Your task to perform on an android device: turn on location history Image 0: 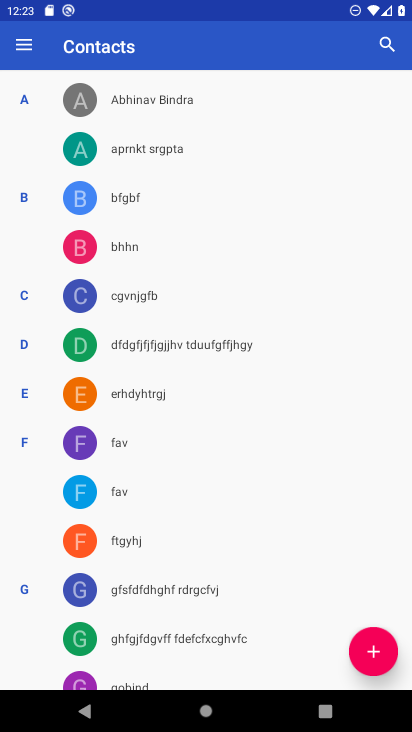
Step 0: press home button
Your task to perform on an android device: turn on location history Image 1: 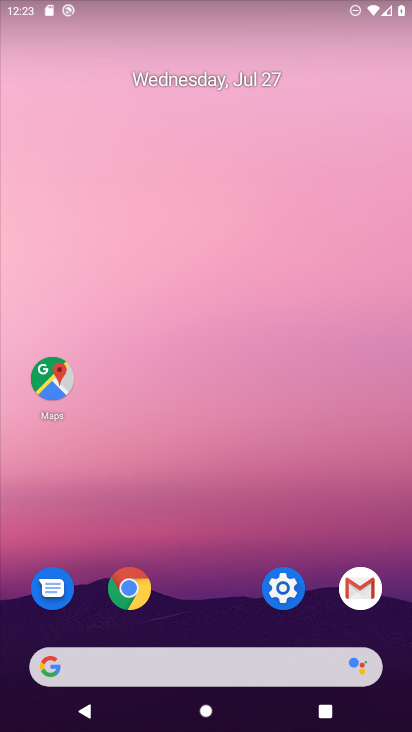
Step 1: click (284, 594)
Your task to perform on an android device: turn on location history Image 2: 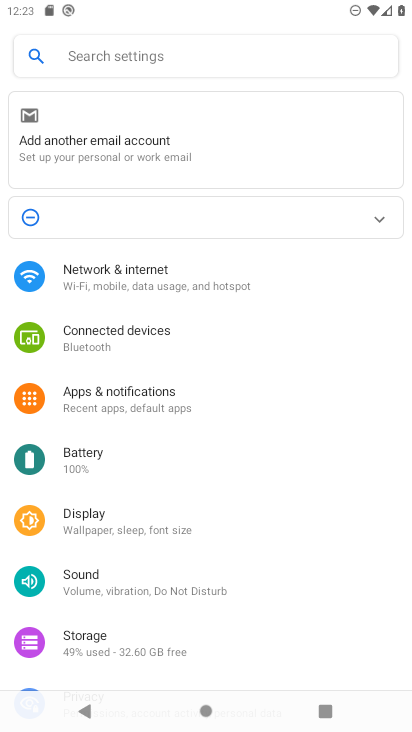
Step 2: drag from (126, 541) to (144, 436)
Your task to perform on an android device: turn on location history Image 3: 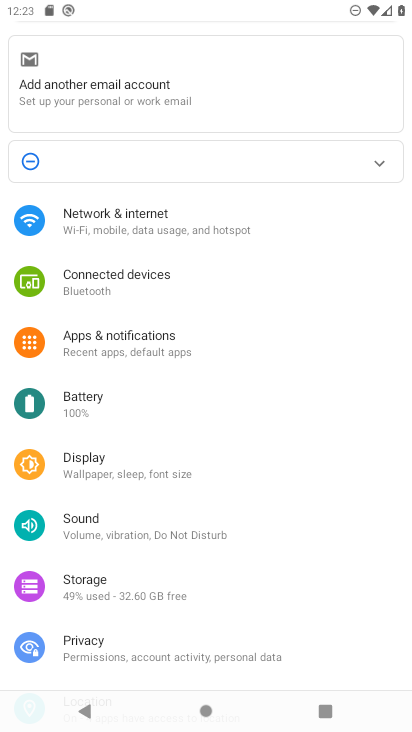
Step 3: drag from (104, 609) to (187, 472)
Your task to perform on an android device: turn on location history Image 4: 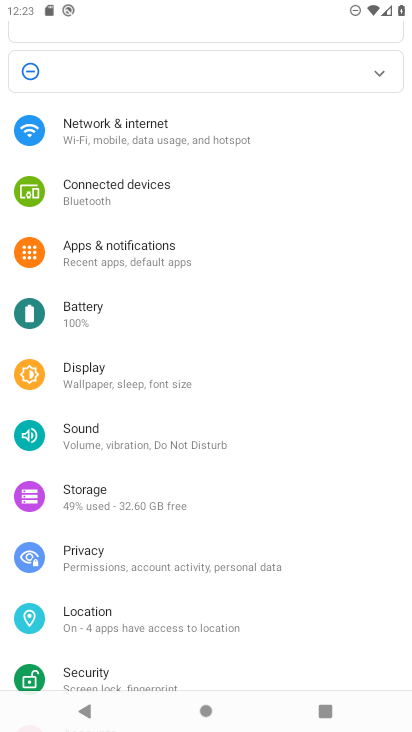
Step 4: click (86, 626)
Your task to perform on an android device: turn on location history Image 5: 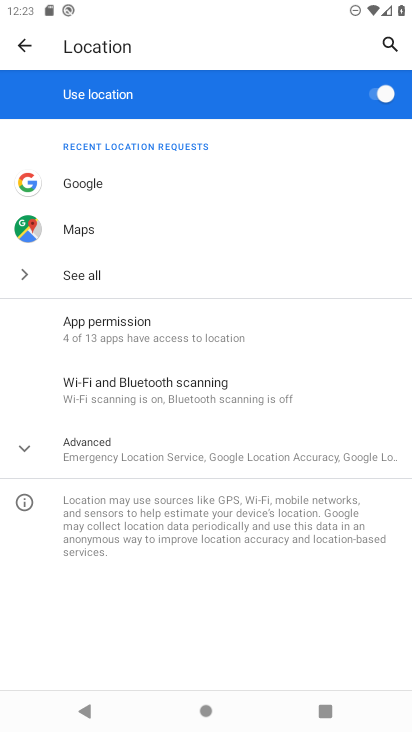
Step 5: click (53, 453)
Your task to perform on an android device: turn on location history Image 6: 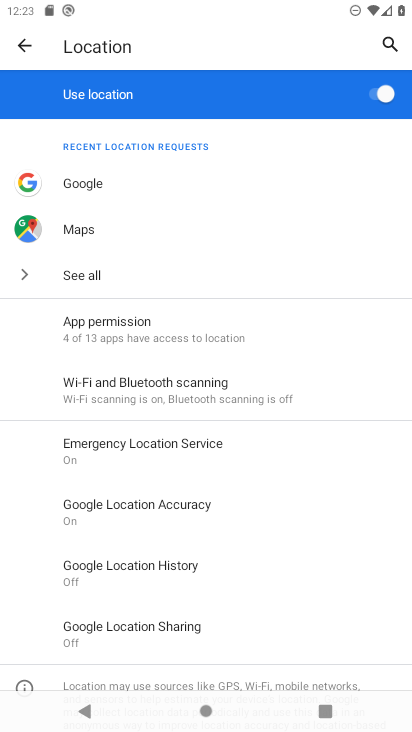
Step 6: click (167, 559)
Your task to perform on an android device: turn on location history Image 7: 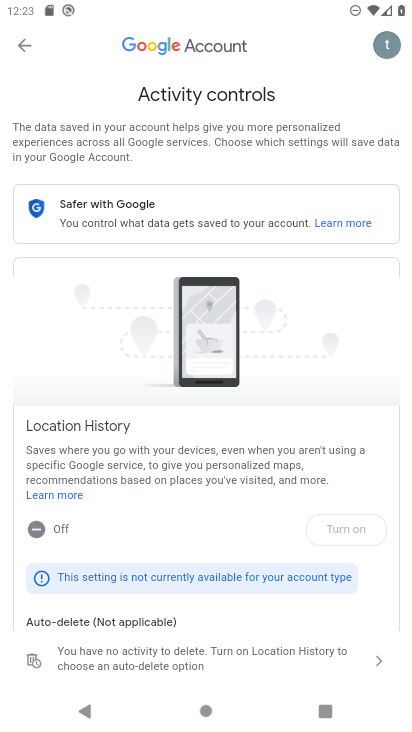
Step 7: click (326, 526)
Your task to perform on an android device: turn on location history Image 8: 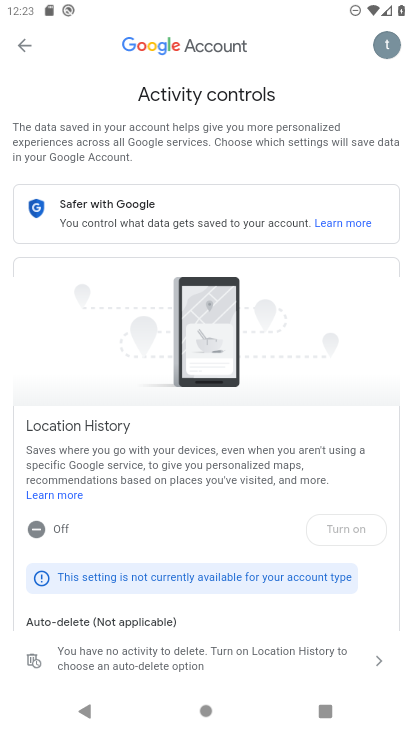
Step 8: click (326, 526)
Your task to perform on an android device: turn on location history Image 9: 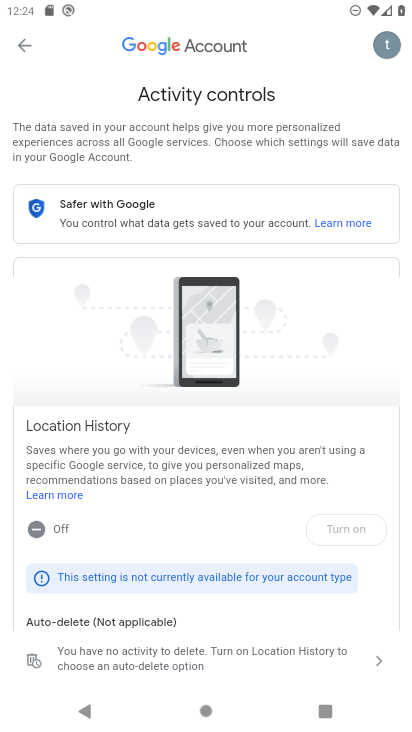
Step 9: task complete